Your task to perform on an android device: refresh tabs in the chrome app Image 0: 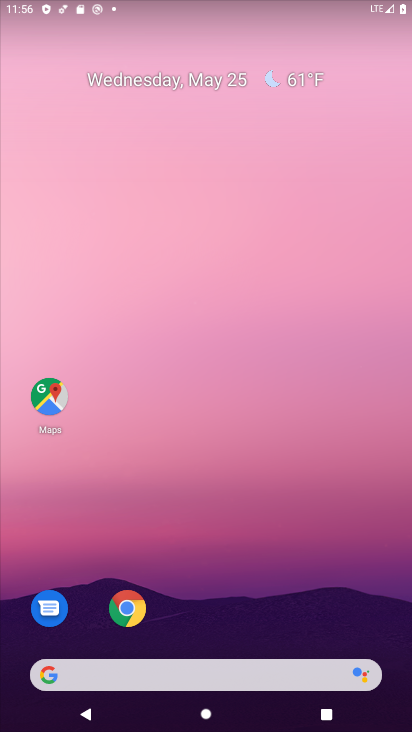
Step 0: click (131, 607)
Your task to perform on an android device: refresh tabs in the chrome app Image 1: 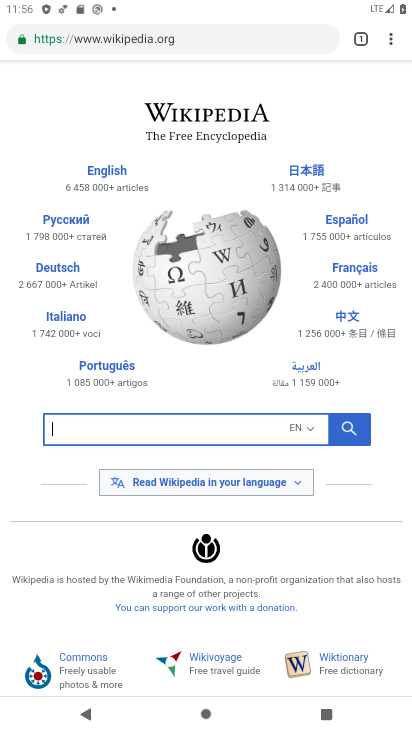
Step 1: click (387, 45)
Your task to perform on an android device: refresh tabs in the chrome app Image 2: 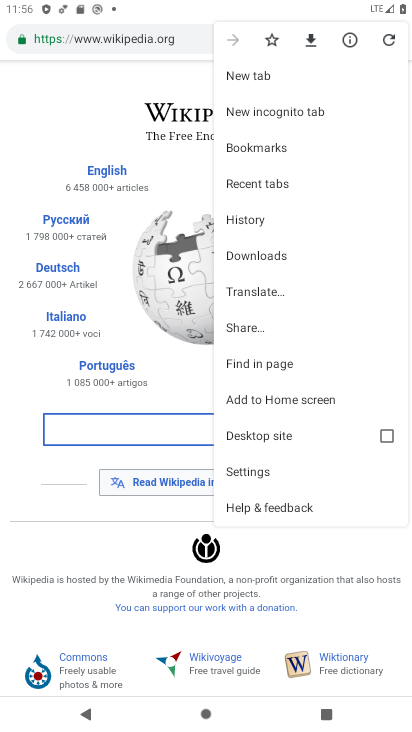
Step 2: click (386, 40)
Your task to perform on an android device: refresh tabs in the chrome app Image 3: 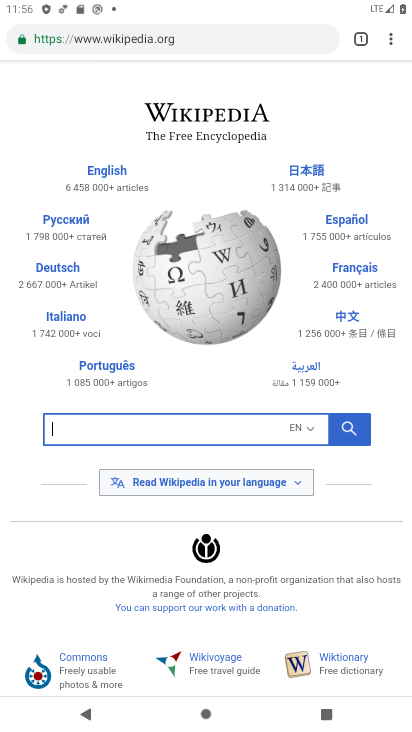
Step 3: task complete